Your task to perform on an android device: Go to accessibility settings Image 0: 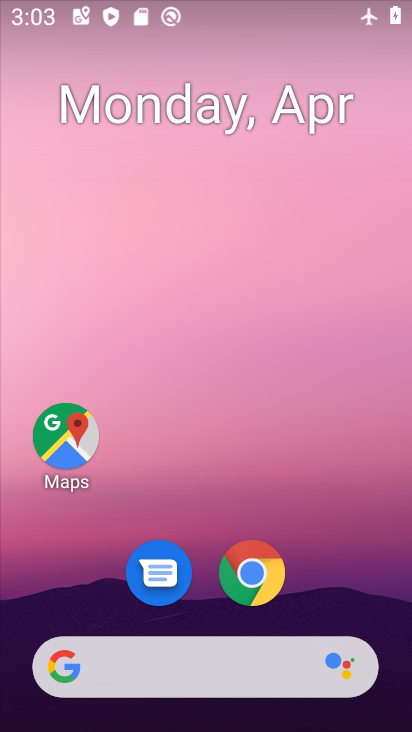
Step 0: drag from (373, 567) to (362, 90)
Your task to perform on an android device: Go to accessibility settings Image 1: 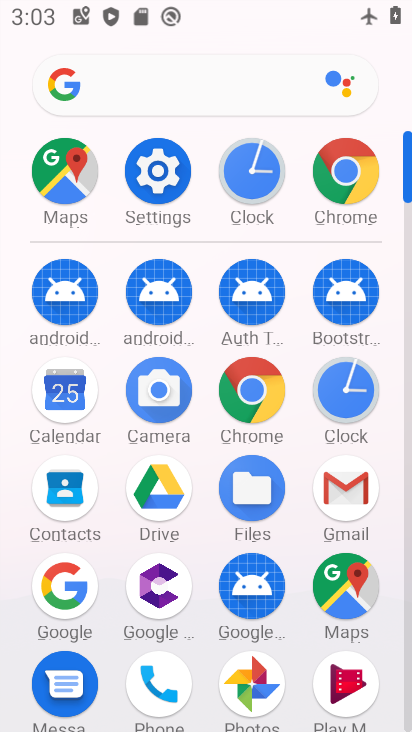
Step 1: click (168, 188)
Your task to perform on an android device: Go to accessibility settings Image 2: 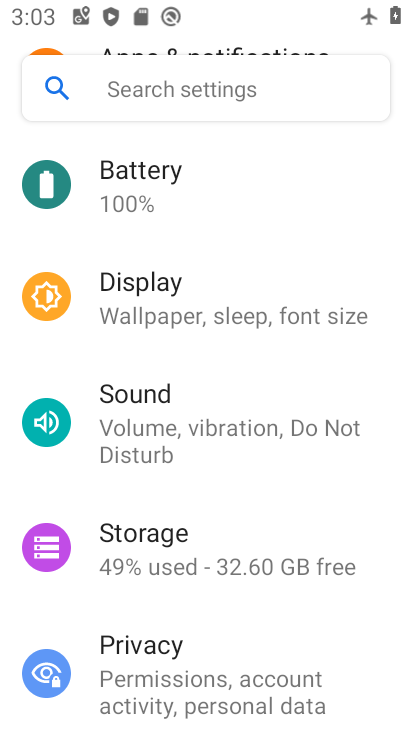
Step 2: drag from (367, 201) to (372, 440)
Your task to perform on an android device: Go to accessibility settings Image 3: 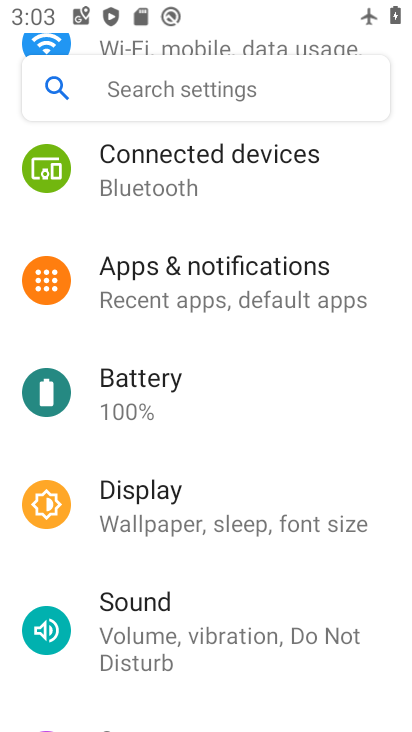
Step 3: drag from (381, 203) to (372, 458)
Your task to perform on an android device: Go to accessibility settings Image 4: 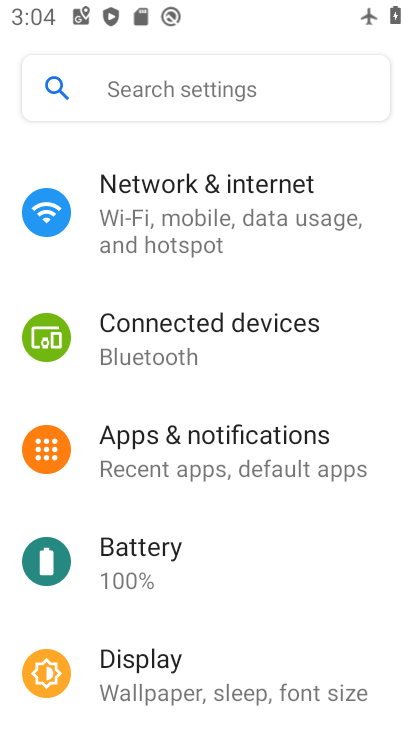
Step 4: drag from (368, 180) to (367, 391)
Your task to perform on an android device: Go to accessibility settings Image 5: 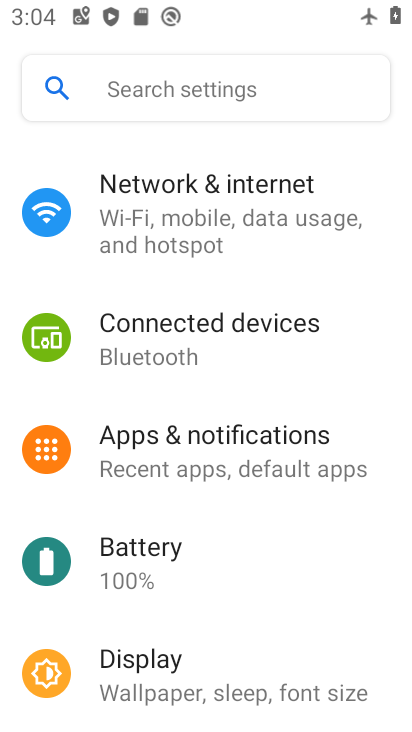
Step 5: drag from (338, 577) to (366, 315)
Your task to perform on an android device: Go to accessibility settings Image 6: 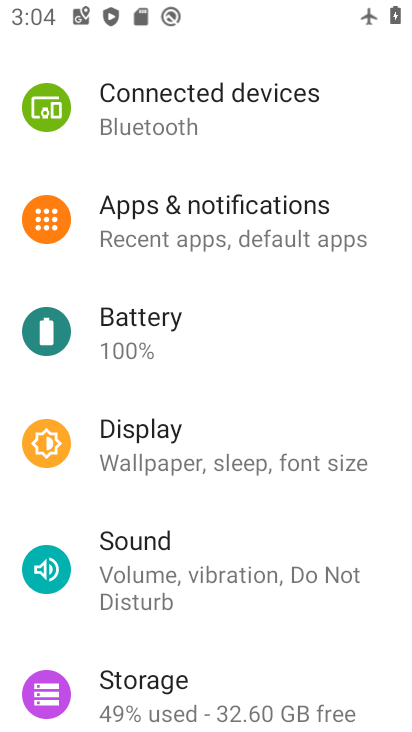
Step 6: drag from (362, 555) to (370, 300)
Your task to perform on an android device: Go to accessibility settings Image 7: 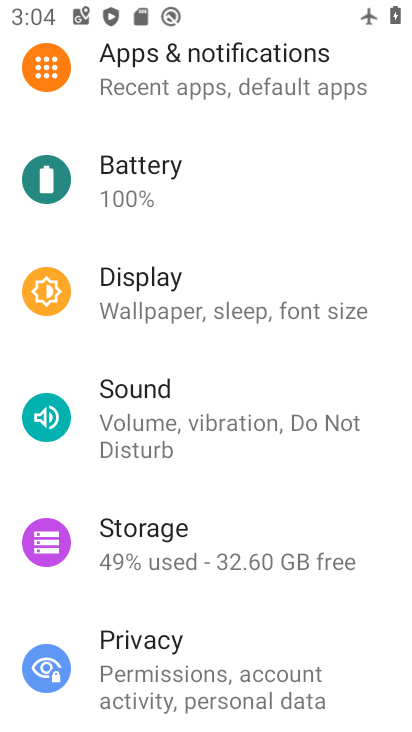
Step 7: drag from (366, 614) to (376, 389)
Your task to perform on an android device: Go to accessibility settings Image 8: 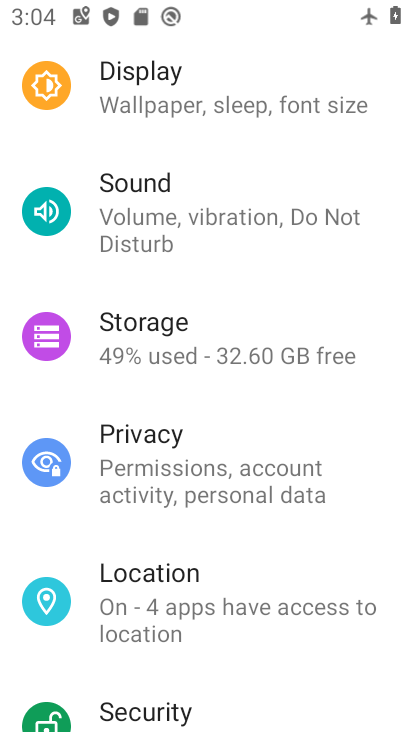
Step 8: drag from (375, 569) to (374, 325)
Your task to perform on an android device: Go to accessibility settings Image 9: 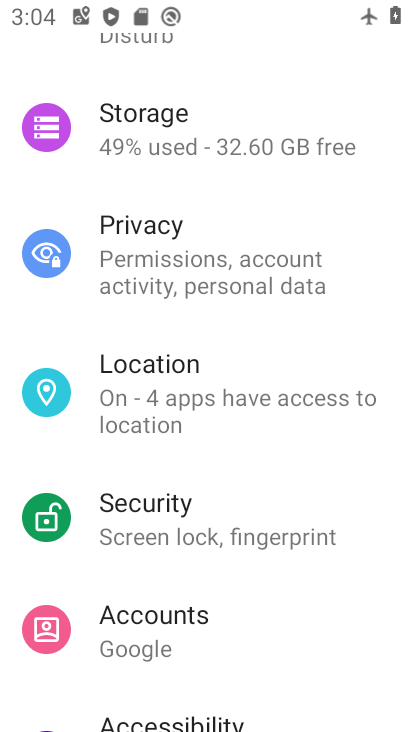
Step 9: drag from (375, 647) to (357, 400)
Your task to perform on an android device: Go to accessibility settings Image 10: 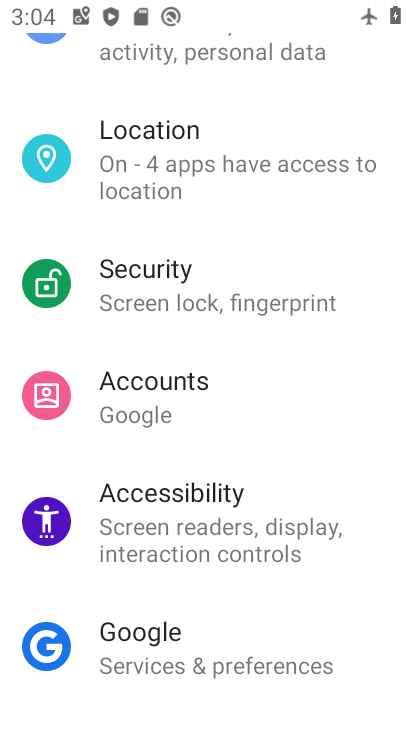
Step 10: drag from (353, 614) to (363, 418)
Your task to perform on an android device: Go to accessibility settings Image 11: 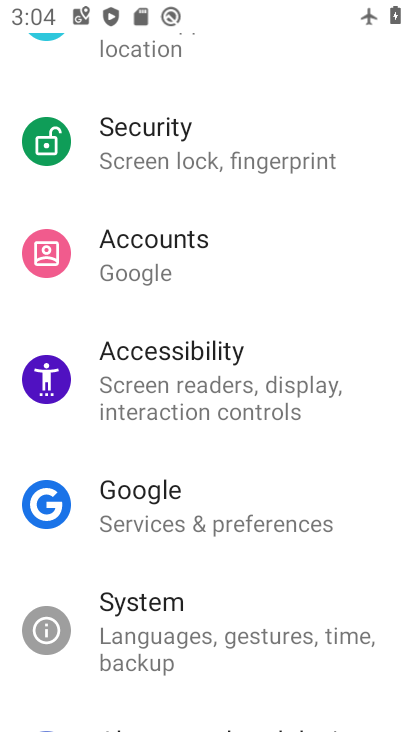
Step 11: click (176, 383)
Your task to perform on an android device: Go to accessibility settings Image 12: 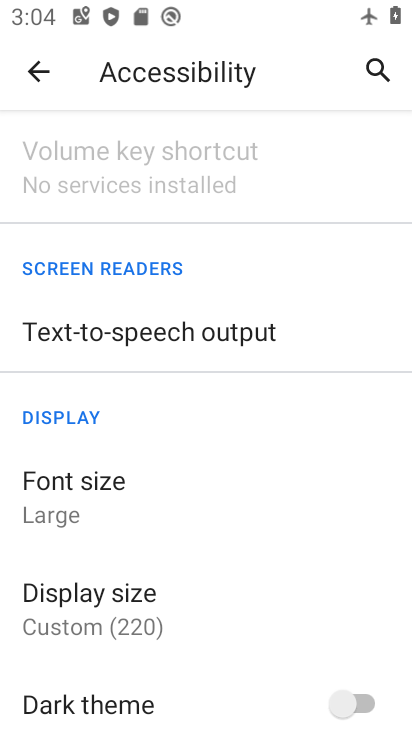
Step 12: task complete